Your task to perform on an android device: Open Youtube and go to the subscriptions tab Image 0: 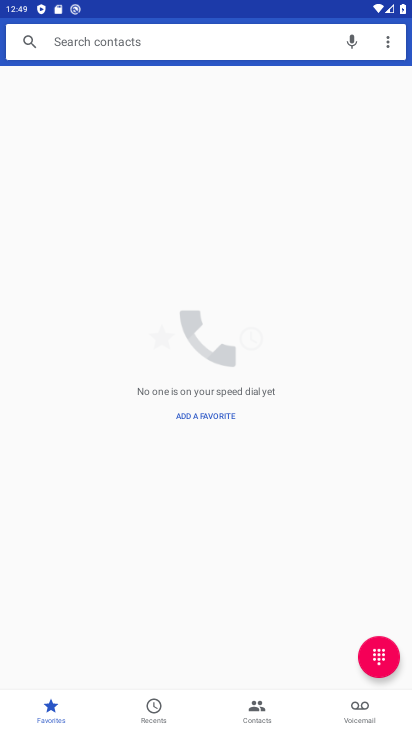
Step 0: press back button
Your task to perform on an android device: Open Youtube and go to the subscriptions tab Image 1: 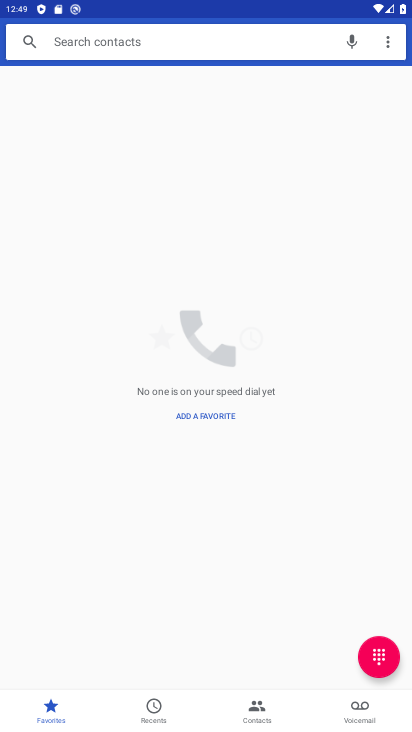
Step 1: press back button
Your task to perform on an android device: Open Youtube and go to the subscriptions tab Image 2: 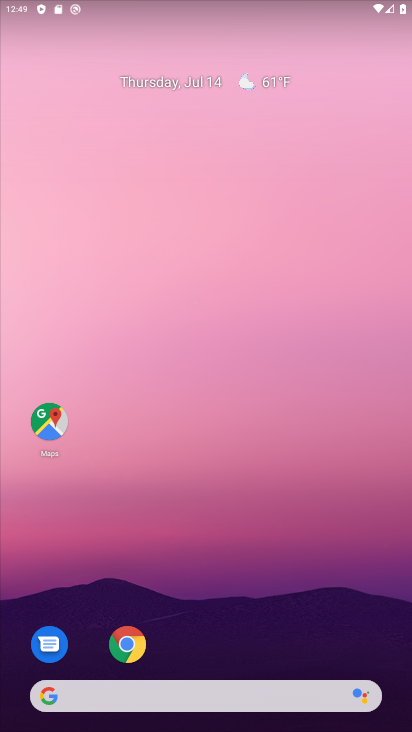
Step 2: drag from (264, 422) to (223, 151)
Your task to perform on an android device: Open Youtube and go to the subscriptions tab Image 3: 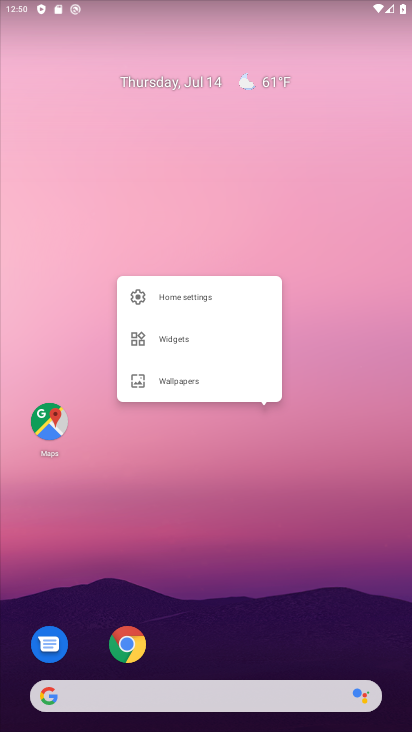
Step 3: drag from (251, 625) to (121, 6)
Your task to perform on an android device: Open Youtube and go to the subscriptions tab Image 4: 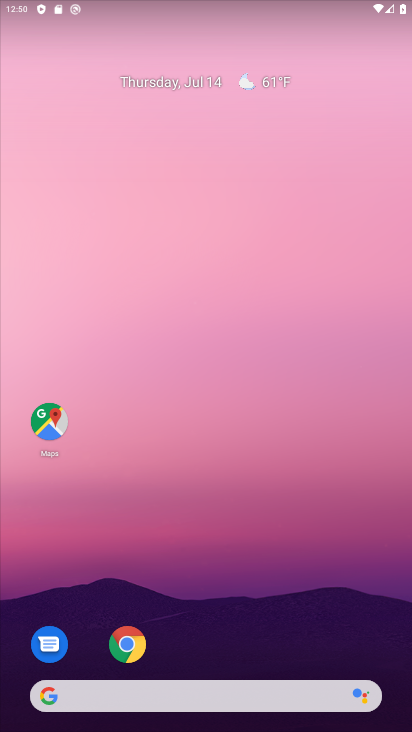
Step 4: drag from (188, 514) to (224, 137)
Your task to perform on an android device: Open Youtube and go to the subscriptions tab Image 5: 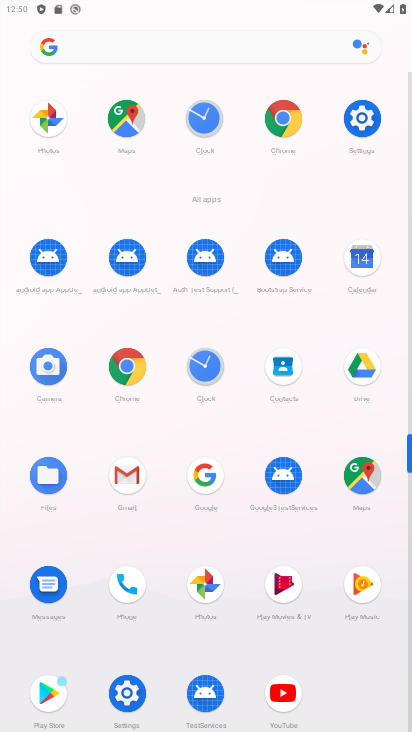
Step 5: drag from (250, 486) to (272, 129)
Your task to perform on an android device: Open Youtube and go to the subscriptions tab Image 6: 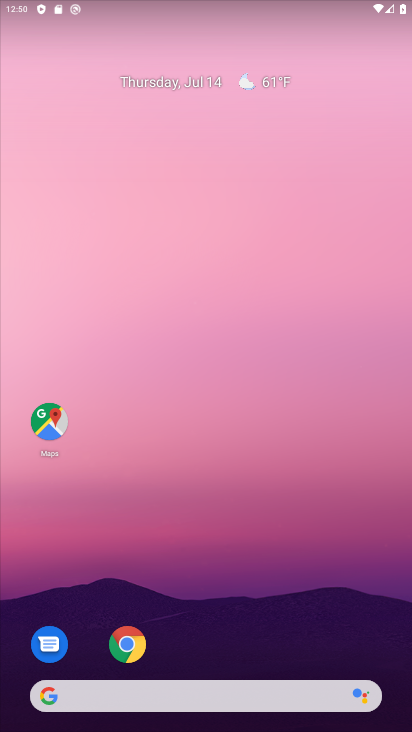
Step 6: drag from (283, 461) to (281, 51)
Your task to perform on an android device: Open Youtube and go to the subscriptions tab Image 7: 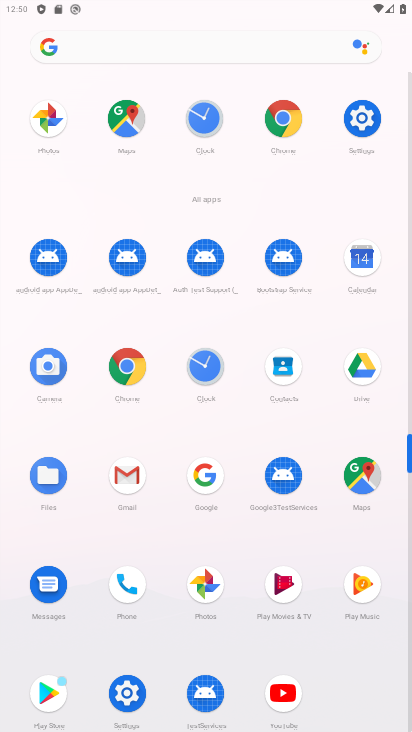
Step 7: drag from (254, 10) to (231, 36)
Your task to perform on an android device: Open Youtube and go to the subscriptions tab Image 8: 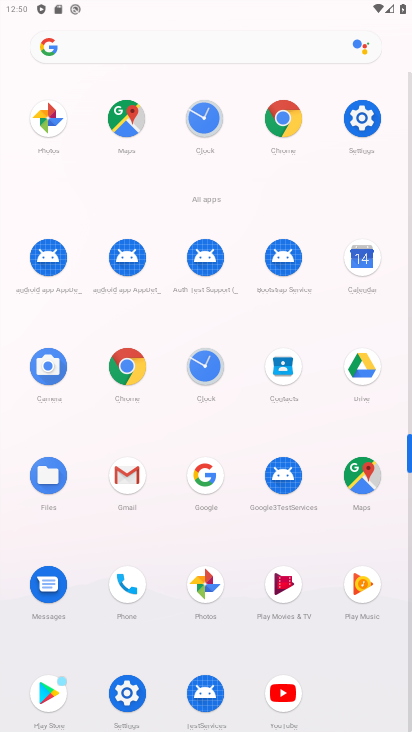
Step 8: drag from (286, 695) to (170, 76)
Your task to perform on an android device: Open Youtube and go to the subscriptions tab Image 9: 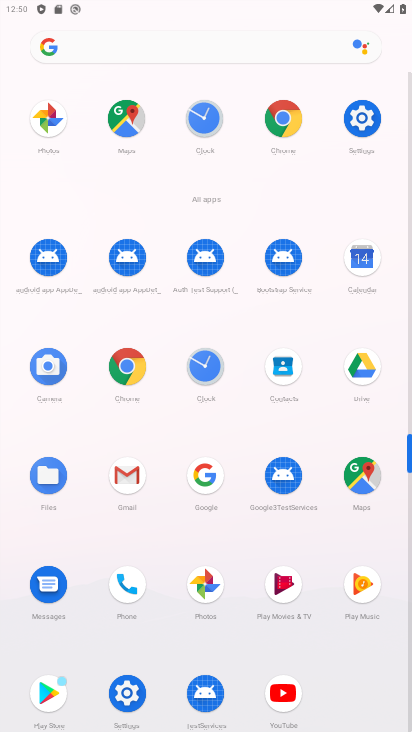
Step 9: drag from (204, 401) to (172, 160)
Your task to perform on an android device: Open Youtube and go to the subscriptions tab Image 10: 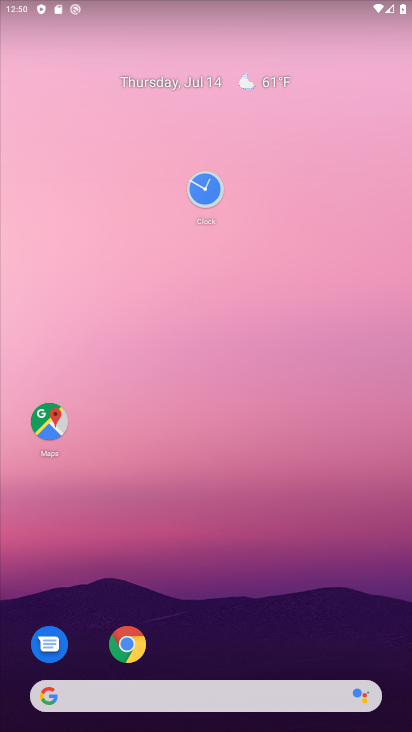
Step 10: click (273, 693)
Your task to perform on an android device: Open Youtube and go to the subscriptions tab Image 11: 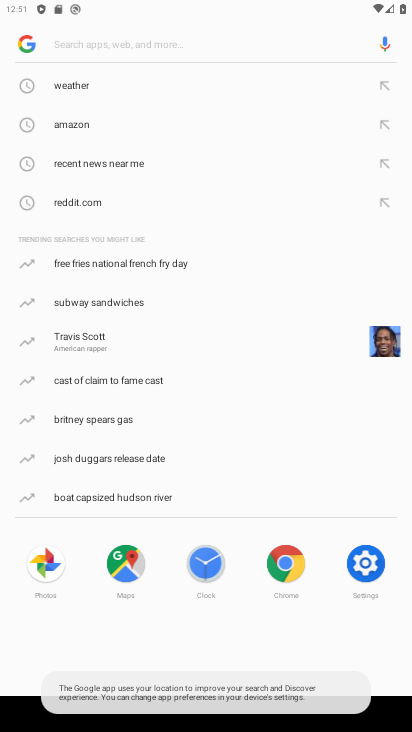
Step 11: click (278, 691)
Your task to perform on an android device: Open Youtube and go to the subscriptions tab Image 12: 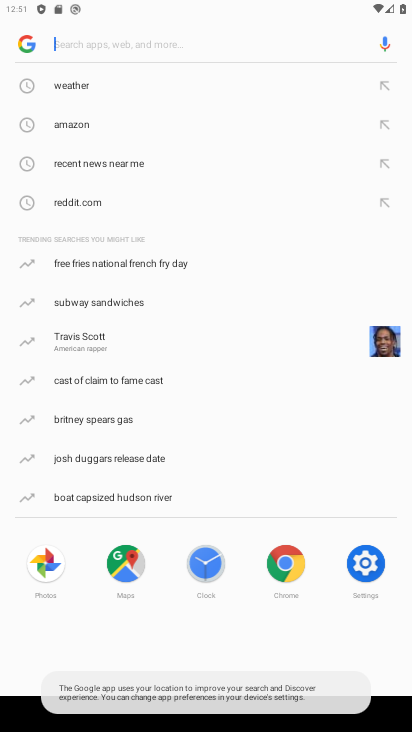
Step 12: click (278, 691)
Your task to perform on an android device: Open Youtube and go to the subscriptions tab Image 13: 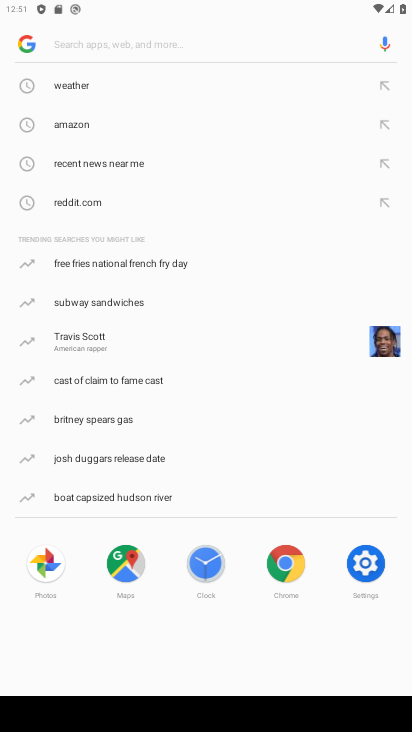
Step 13: click (287, 691)
Your task to perform on an android device: Open Youtube and go to the subscriptions tab Image 14: 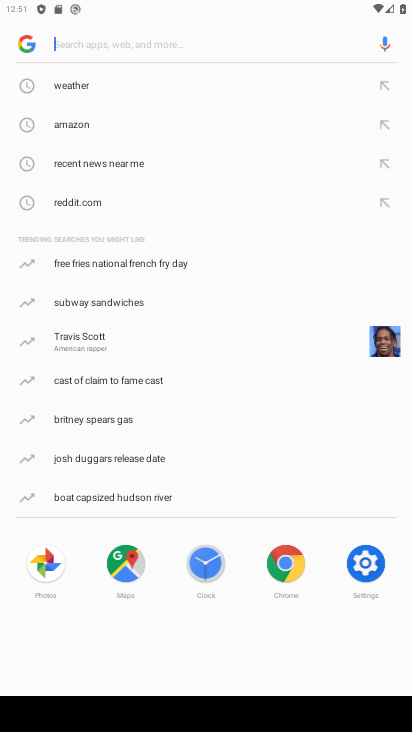
Step 14: click (272, 686)
Your task to perform on an android device: Open Youtube and go to the subscriptions tab Image 15: 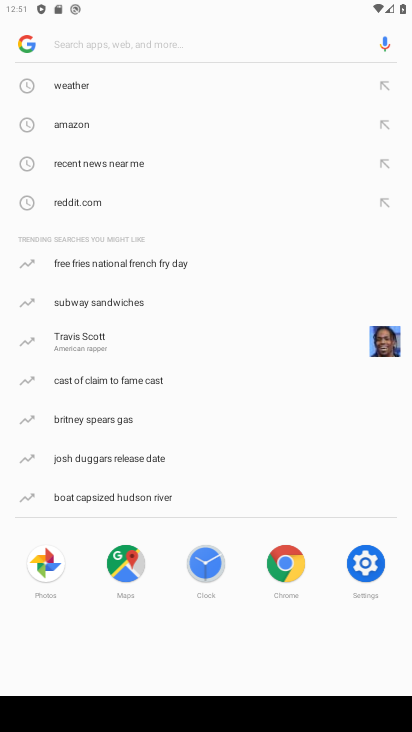
Step 15: click (281, 686)
Your task to perform on an android device: Open Youtube and go to the subscriptions tab Image 16: 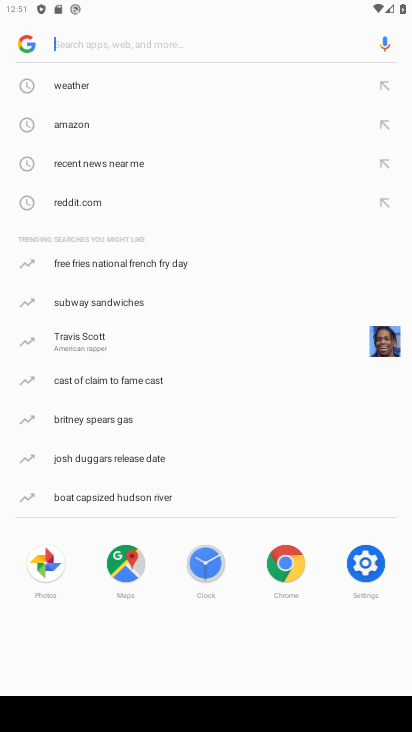
Step 16: drag from (207, 536) to (305, 150)
Your task to perform on an android device: Open Youtube and go to the subscriptions tab Image 17: 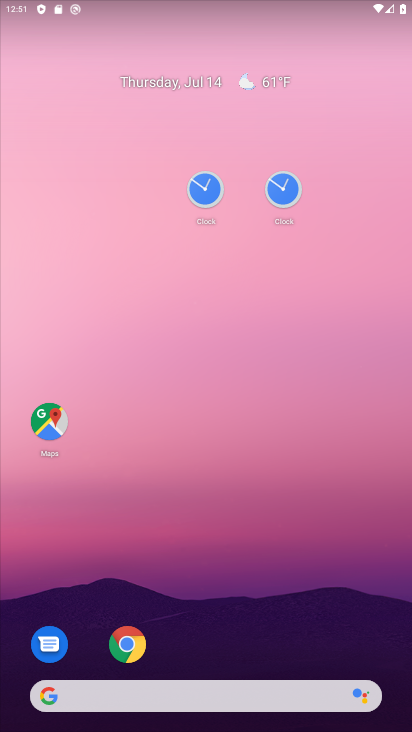
Step 17: click (233, 143)
Your task to perform on an android device: Open Youtube and go to the subscriptions tab Image 18: 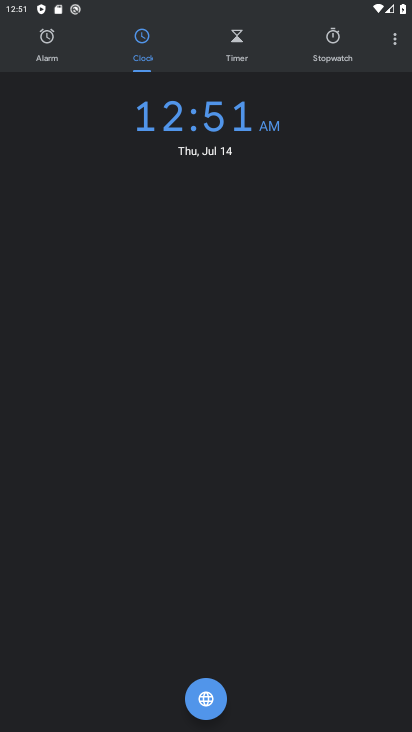
Step 18: press back button
Your task to perform on an android device: Open Youtube and go to the subscriptions tab Image 19: 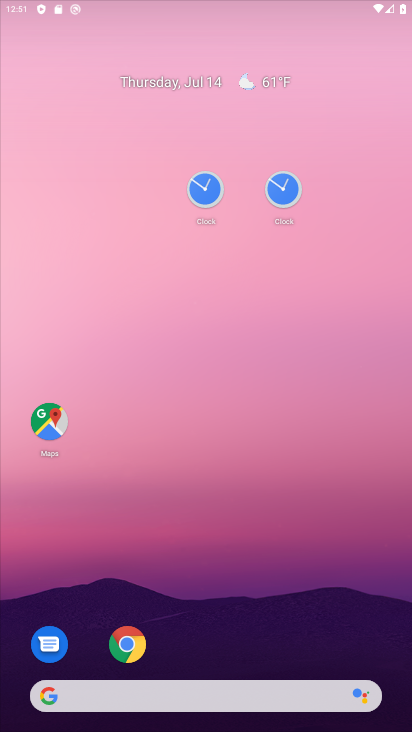
Step 19: press home button
Your task to perform on an android device: Open Youtube and go to the subscriptions tab Image 20: 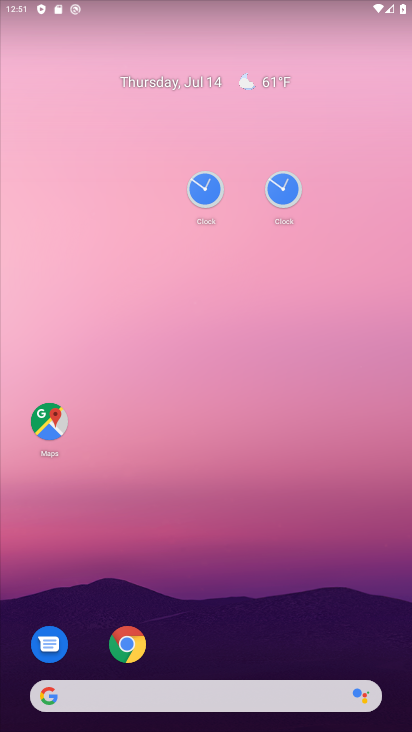
Step 20: press back button
Your task to perform on an android device: Open Youtube and go to the subscriptions tab Image 21: 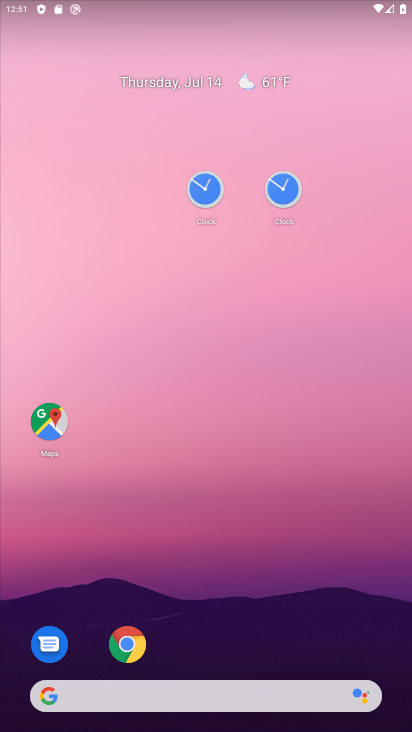
Step 21: drag from (249, 579) to (180, 99)
Your task to perform on an android device: Open Youtube and go to the subscriptions tab Image 22: 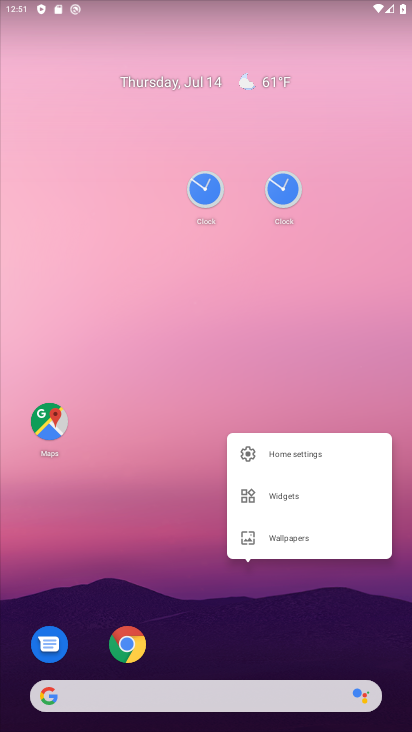
Step 22: press back button
Your task to perform on an android device: Open Youtube and go to the subscriptions tab Image 23: 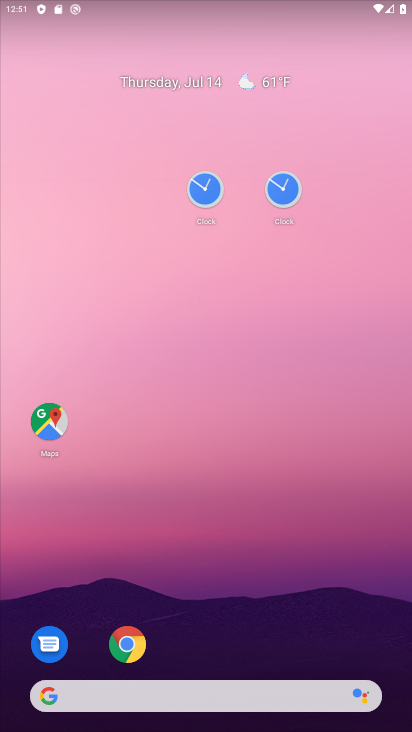
Step 23: click (180, 154)
Your task to perform on an android device: Open Youtube and go to the subscriptions tab Image 24: 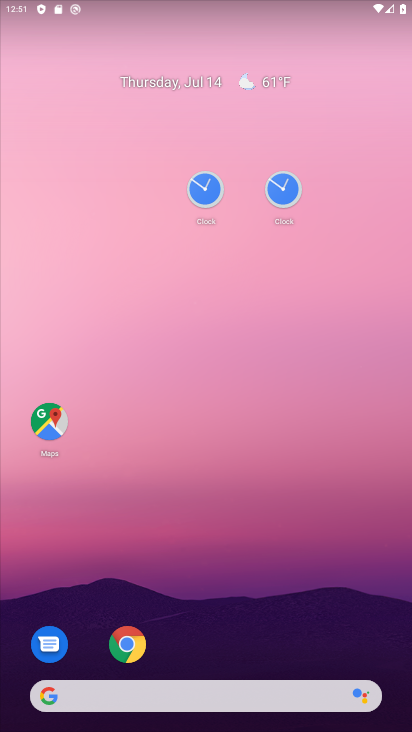
Step 24: click (199, 260)
Your task to perform on an android device: Open Youtube and go to the subscriptions tab Image 25: 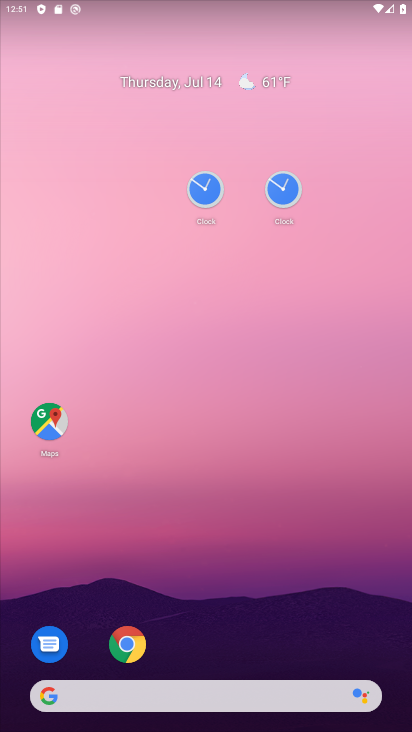
Step 25: drag from (179, 332) to (159, 192)
Your task to perform on an android device: Open Youtube and go to the subscriptions tab Image 26: 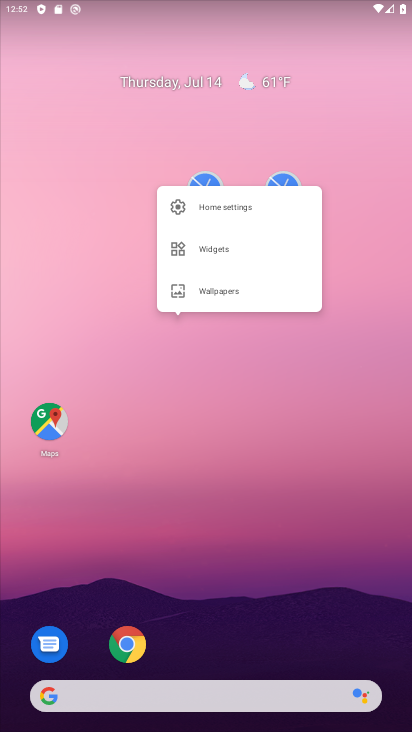
Step 26: click (170, 222)
Your task to perform on an android device: Open Youtube and go to the subscriptions tab Image 27: 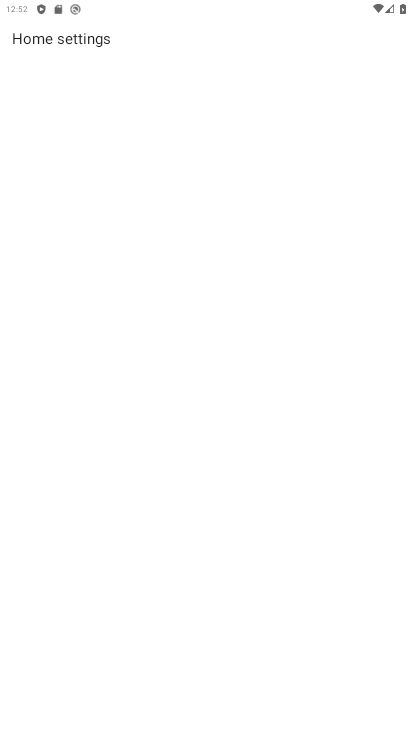
Step 27: drag from (271, 666) to (261, 201)
Your task to perform on an android device: Open Youtube and go to the subscriptions tab Image 28: 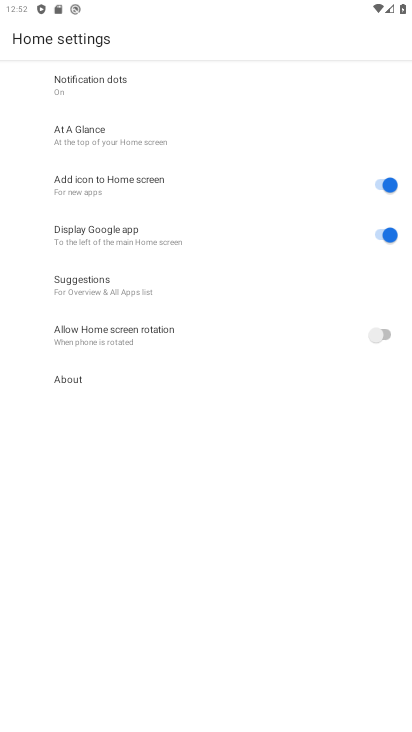
Step 28: drag from (207, 553) to (169, 196)
Your task to perform on an android device: Open Youtube and go to the subscriptions tab Image 29: 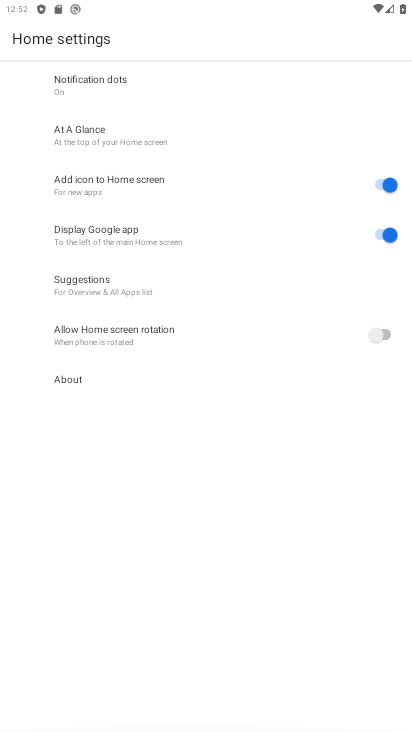
Step 29: drag from (231, 584) to (125, 32)
Your task to perform on an android device: Open Youtube and go to the subscriptions tab Image 30: 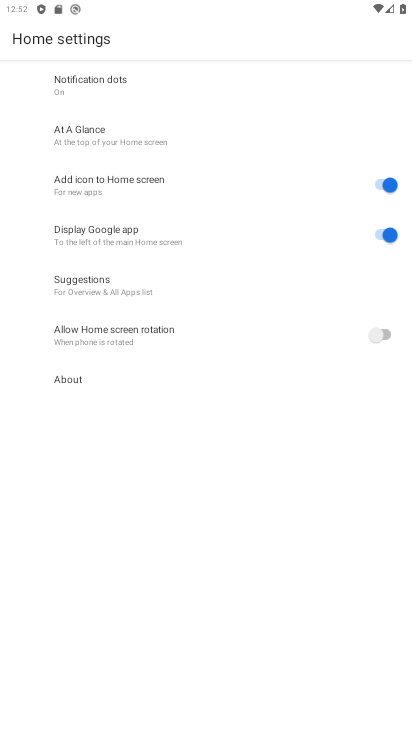
Step 30: drag from (78, 554) to (54, 63)
Your task to perform on an android device: Open Youtube and go to the subscriptions tab Image 31: 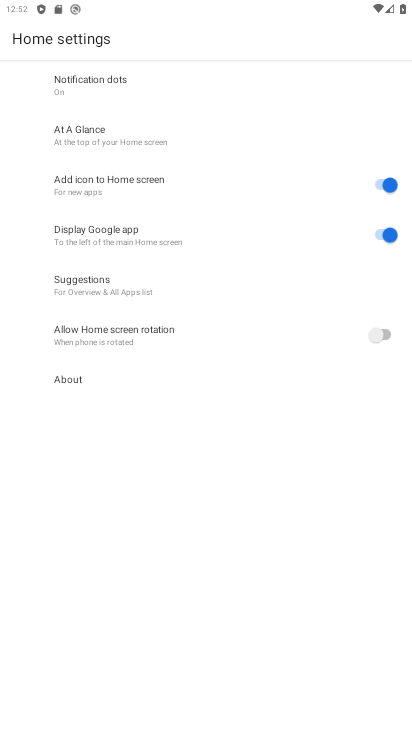
Step 31: drag from (194, 679) to (186, 60)
Your task to perform on an android device: Open Youtube and go to the subscriptions tab Image 32: 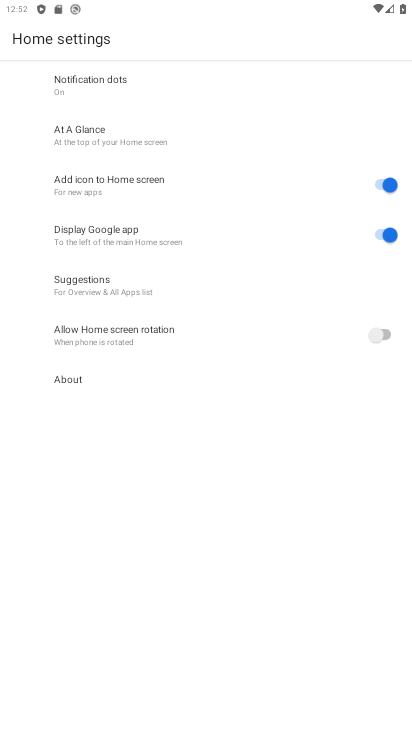
Step 32: drag from (246, 529) to (190, 46)
Your task to perform on an android device: Open Youtube and go to the subscriptions tab Image 33: 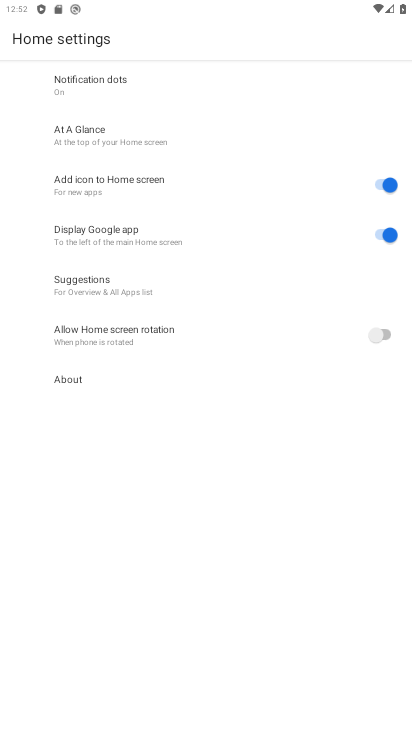
Step 33: drag from (187, 607) to (215, 101)
Your task to perform on an android device: Open Youtube and go to the subscriptions tab Image 34: 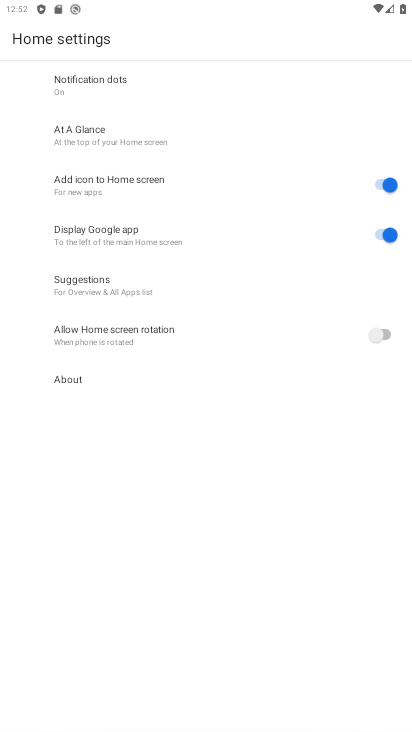
Step 34: click (206, 216)
Your task to perform on an android device: Open Youtube and go to the subscriptions tab Image 35: 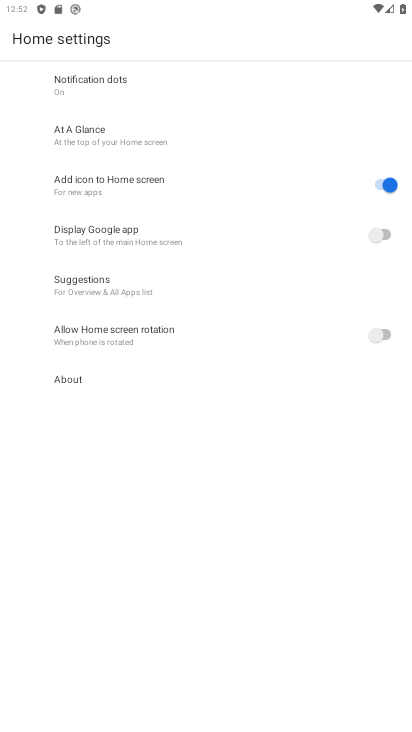
Step 35: task complete